Your task to perform on an android device: check battery use Image 0: 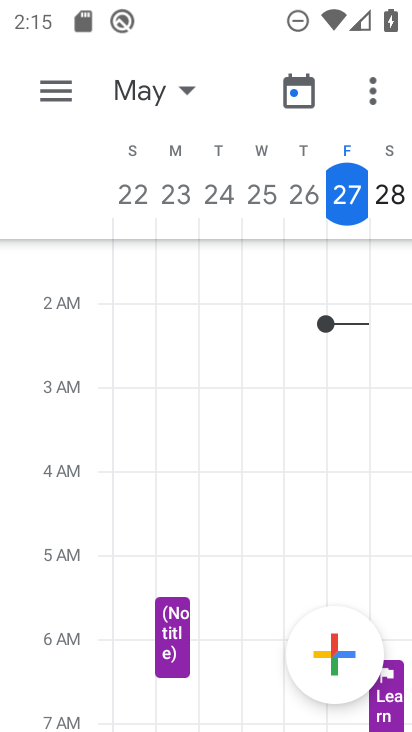
Step 0: press home button
Your task to perform on an android device: check battery use Image 1: 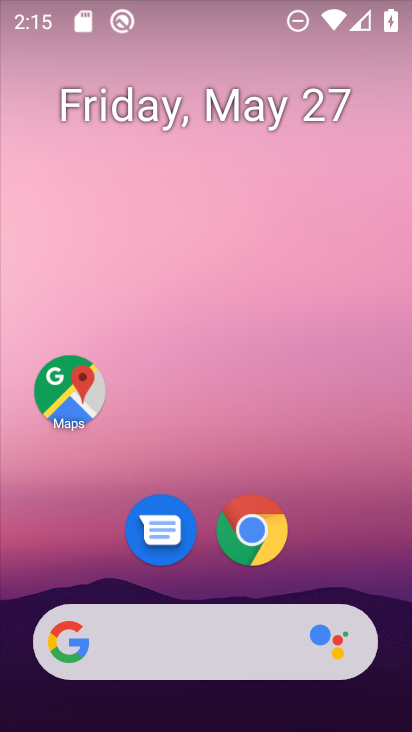
Step 1: drag from (142, 725) to (154, 103)
Your task to perform on an android device: check battery use Image 2: 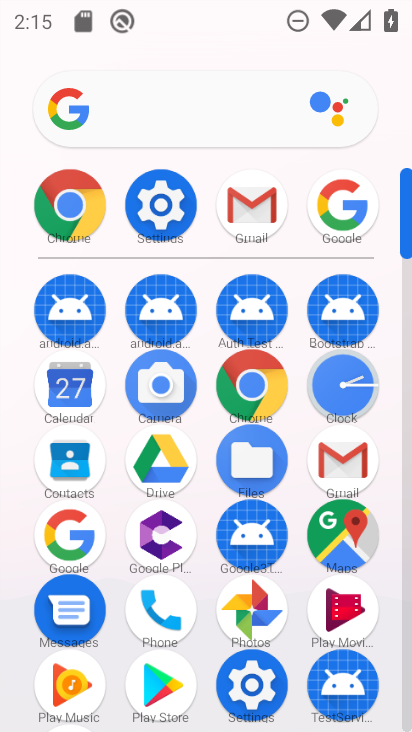
Step 2: click (176, 203)
Your task to perform on an android device: check battery use Image 3: 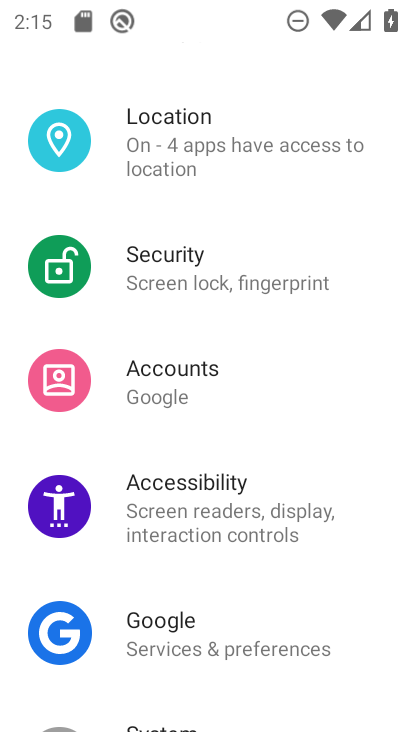
Step 3: drag from (314, 115) to (318, 565)
Your task to perform on an android device: check battery use Image 4: 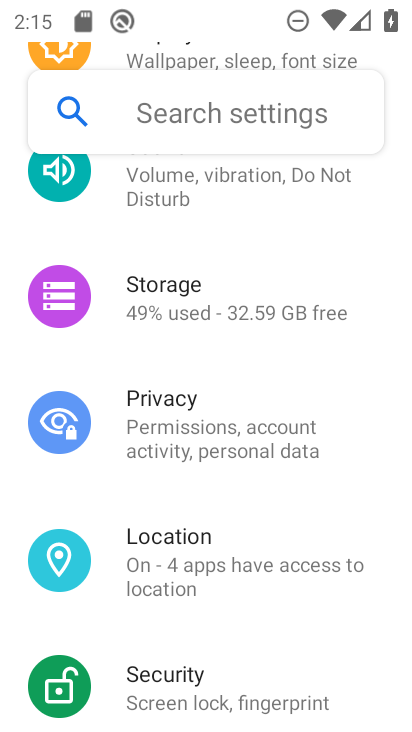
Step 4: drag from (312, 241) to (296, 700)
Your task to perform on an android device: check battery use Image 5: 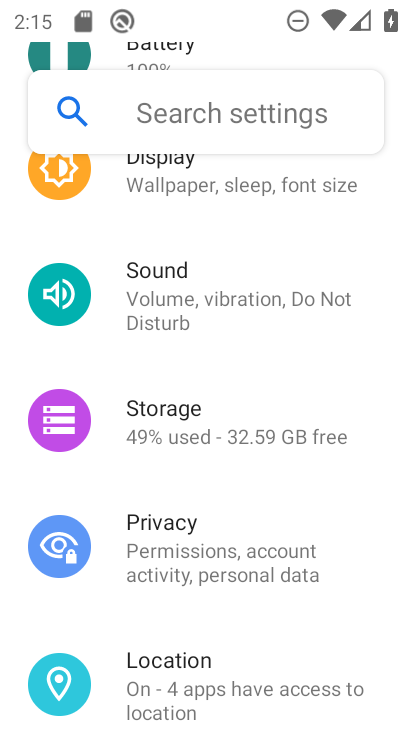
Step 5: drag from (299, 262) to (308, 555)
Your task to perform on an android device: check battery use Image 6: 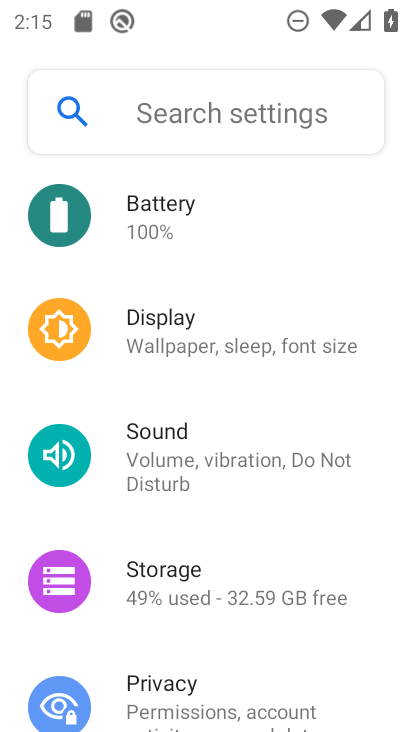
Step 6: click (261, 212)
Your task to perform on an android device: check battery use Image 7: 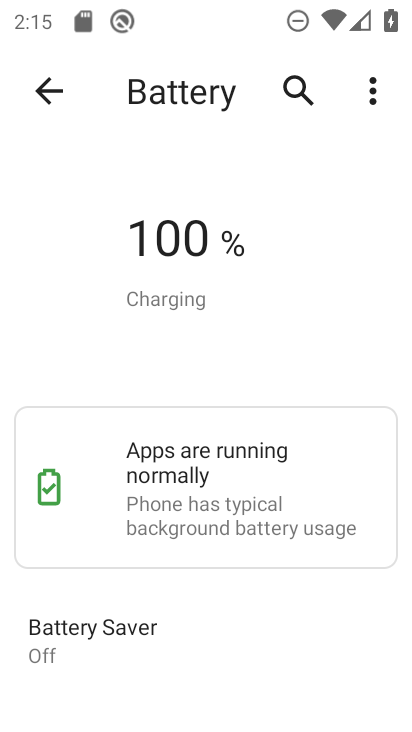
Step 7: click (373, 88)
Your task to perform on an android device: check battery use Image 8: 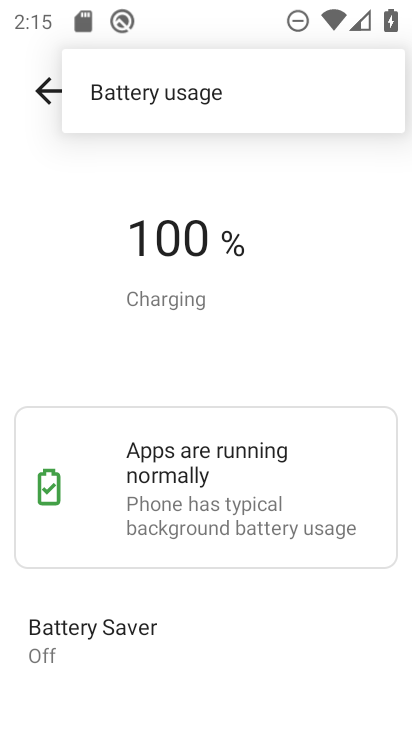
Step 8: click (225, 95)
Your task to perform on an android device: check battery use Image 9: 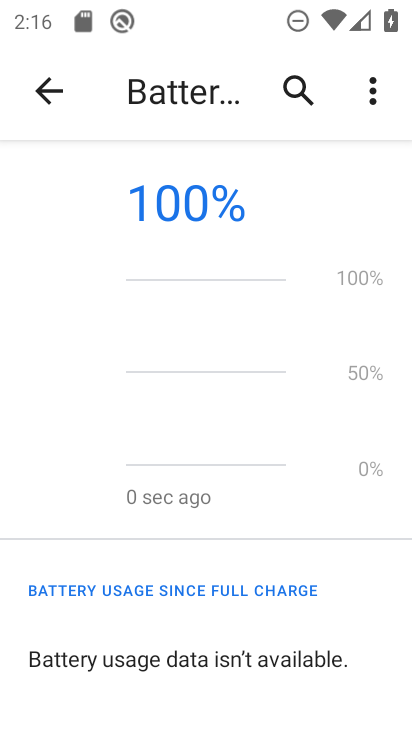
Step 9: task complete